Your task to perform on an android device: turn pop-ups on in chrome Image 0: 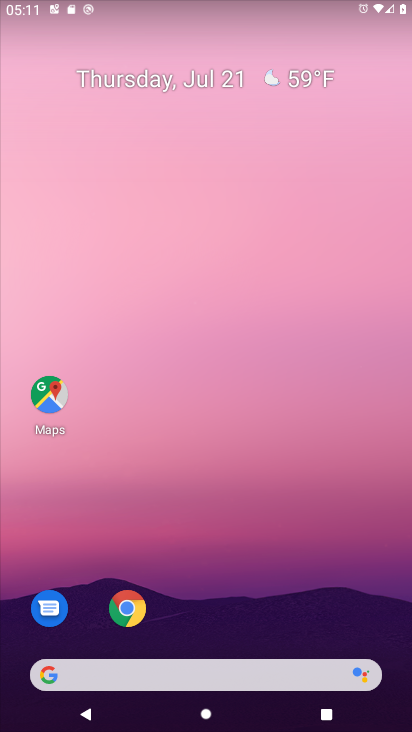
Step 0: drag from (315, 680) to (290, 23)
Your task to perform on an android device: turn pop-ups on in chrome Image 1: 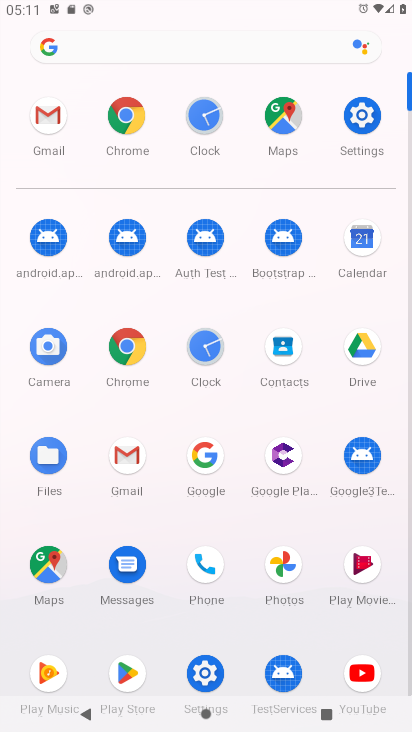
Step 1: click (141, 344)
Your task to perform on an android device: turn pop-ups on in chrome Image 2: 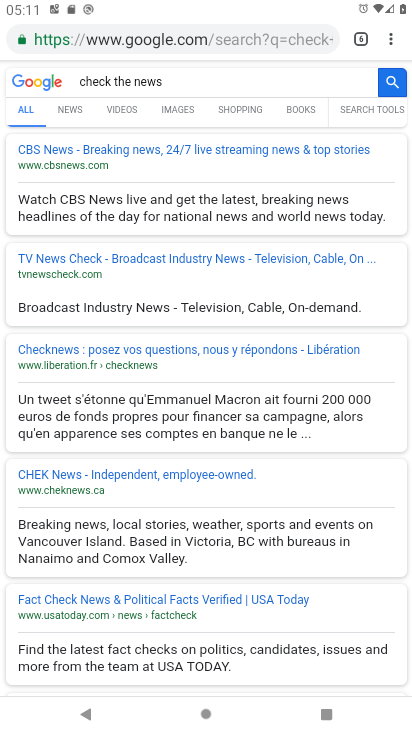
Step 2: drag from (388, 35) to (303, 421)
Your task to perform on an android device: turn pop-ups on in chrome Image 3: 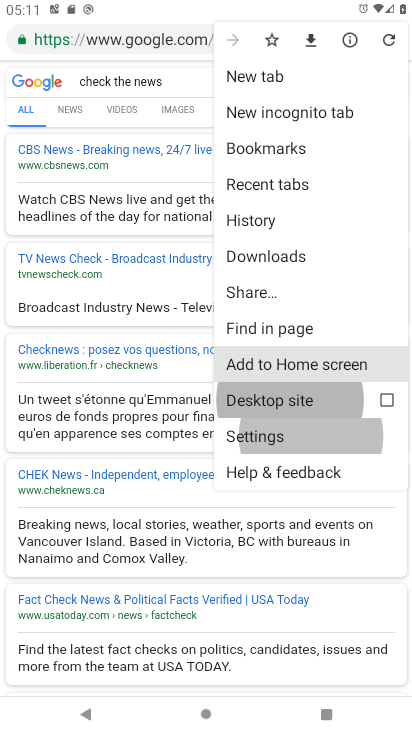
Step 3: click (296, 429)
Your task to perform on an android device: turn pop-ups on in chrome Image 4: 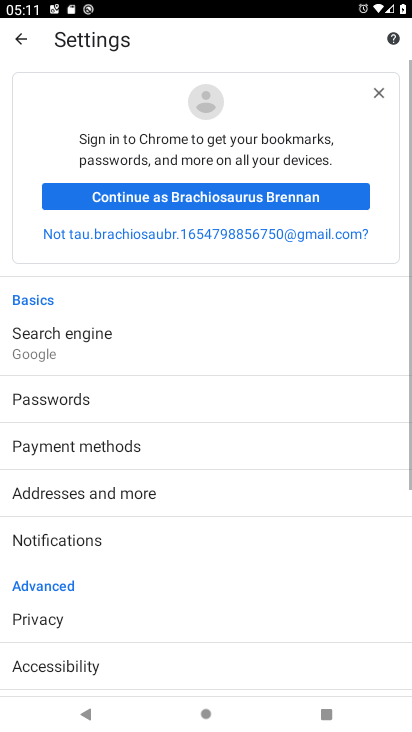
Step 4: drag from (204, 655) to (243, 350)
Your task to perform on an android device: turn pop-ups on in chrome Image 5: 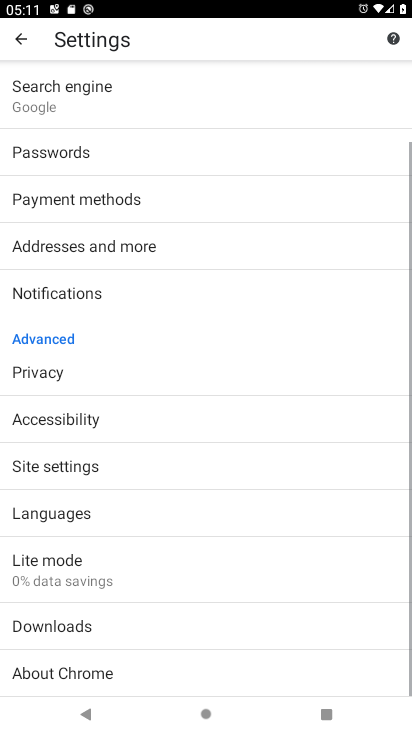
Step 5: click (116, 481)
Your task to perform on an android device: turn pop-ups on in chrome Image 6: 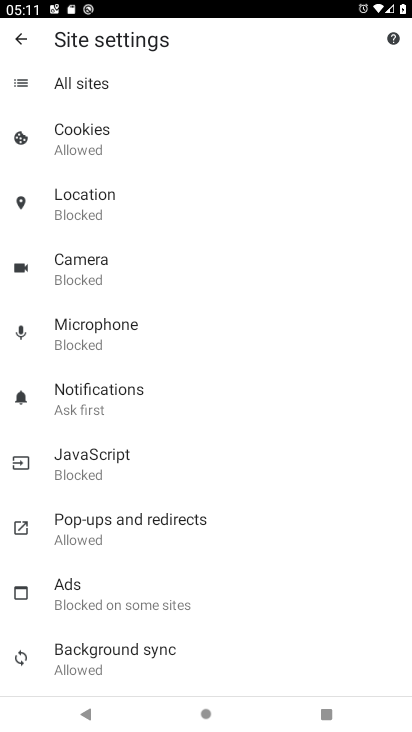
Step 6: click (143, 524)
Your task to perform on an android device: turn pop-ups on in chrome Image 7: 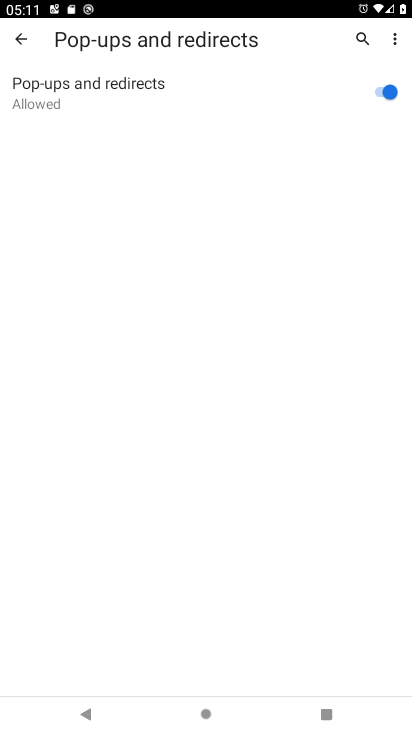
Step 7: task complete